Your task to perform on an android device: Open the calendar app, open the side menu, and click the "Day" option Image 0: 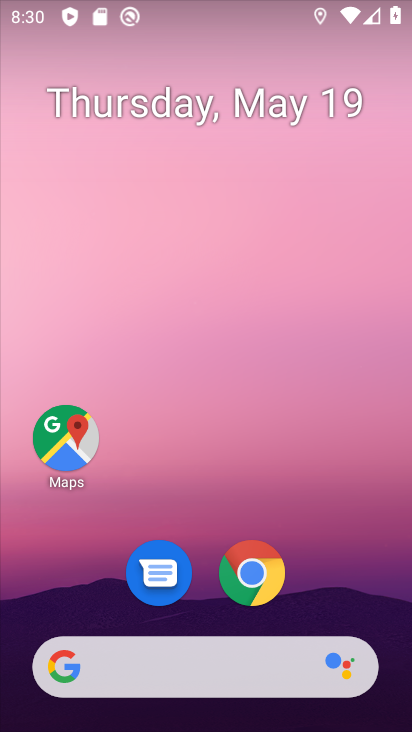
Step 0: drag from (370, 600) to (312, 16)
Your task to perform on an android device: Open the calendar app, open the side menu, and click the "Day" option Image 1: 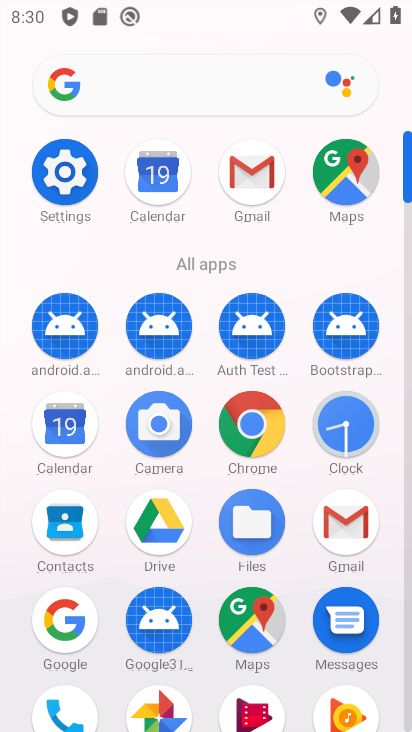
Step 1: click (155, 178)
Your task to perform on an android device: Open the calendar app, open the side menu, and click the "Day" option Image 2: 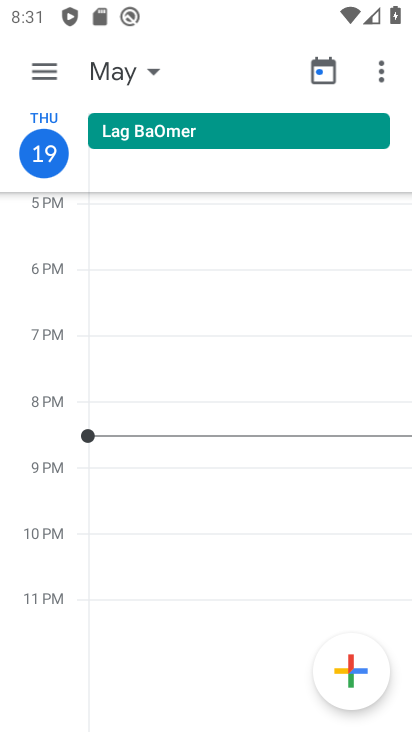
Step 2: click (54, 71)
Your task to perform on an android device: Open the calendar app, open the side menu, and click the "Day" option Image 3: 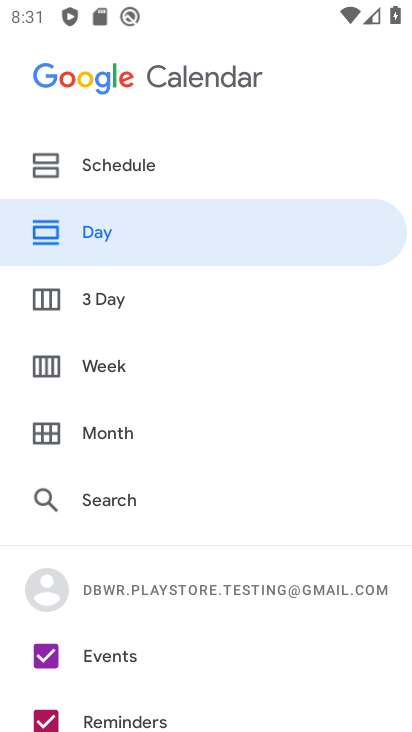
Step 3: click (67, 226)
Your task to perform on an android device: Open the calendar app, open the side menu, and click the "Day" option Image 4: 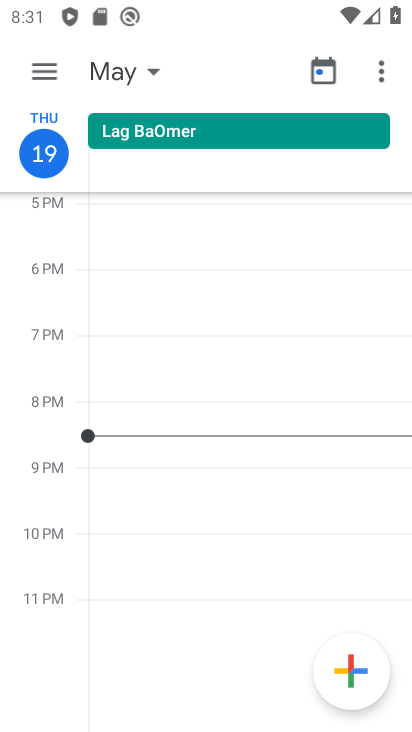
Step 4: task complete